Your task to perform on an android device: add a contact Image 0: 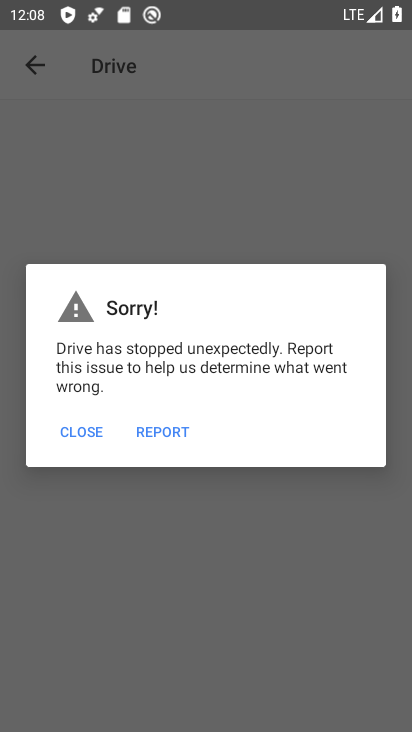
Step 0: press home button
Your task to perform on an android device: add a contact Image 1: 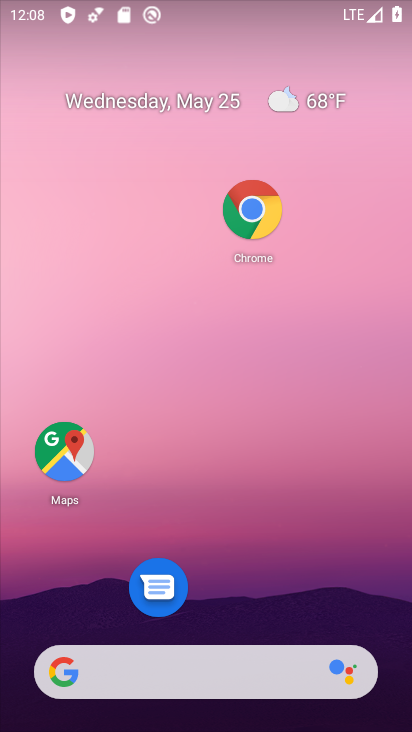
Step 1: drag from (233, 610) to (291, 71)
Your task to perform on an android device: add a contact Image 2: 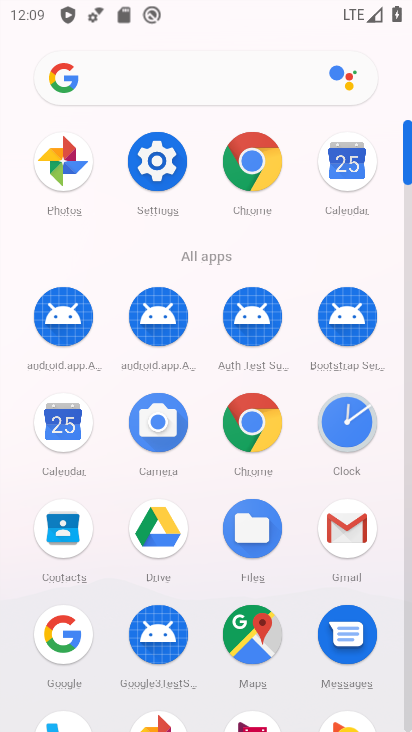
Step 2: click (61, 528)
Your task to perform on an android device: add a contact Image 3: 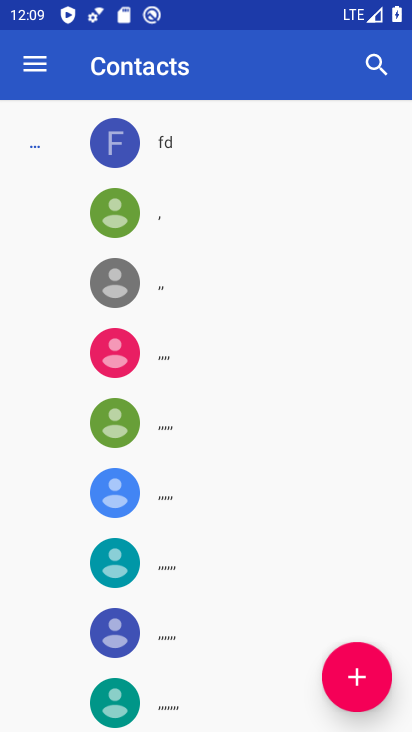
Step 3: click (355, 668)
Your task to perform on an android device: add a contact Image 4: 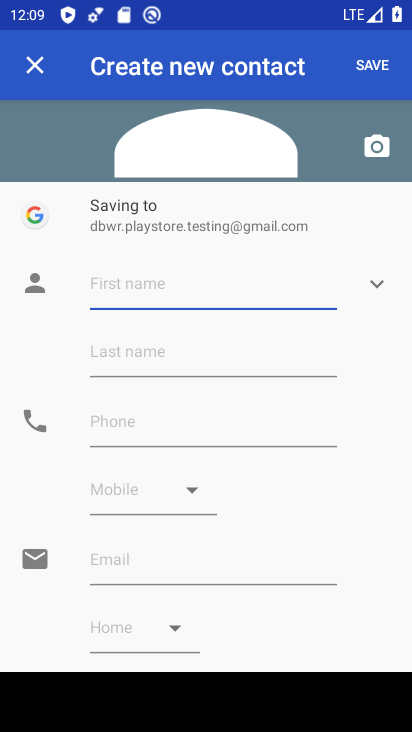
Step 4: type "yrdrf"
Your task to perform on an android device: add a contact Image 5: 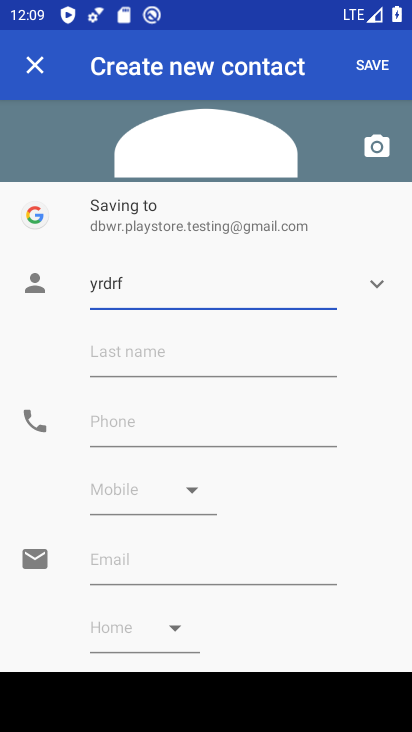
Step 5: click (364, 67)
Your task to perform on an android device: add a contact Image 6: 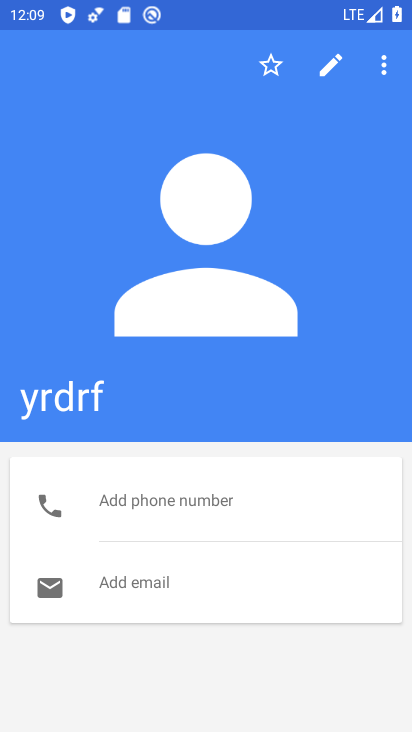
Step 6: task complete